Your task to perform on an android device: When is my next appointment? Image 0: 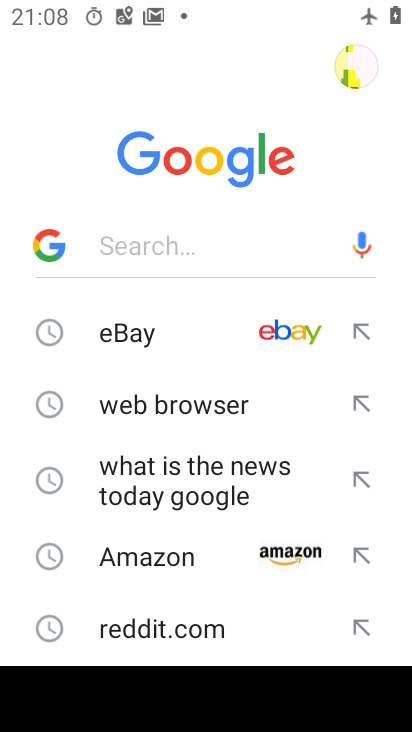
Step 0: press home button
Your task to perform on an android device: When is my next appointment? Image 1: 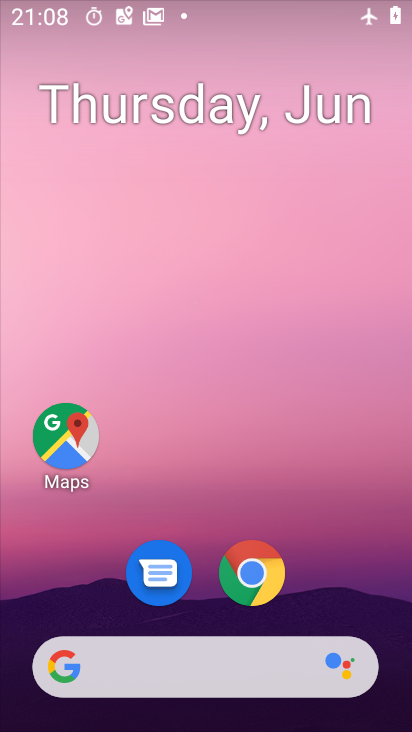
Step 1: drag from (249, 587) to (278, 261)
Your task to perform on an android device: When is my next appointment? Image 2: 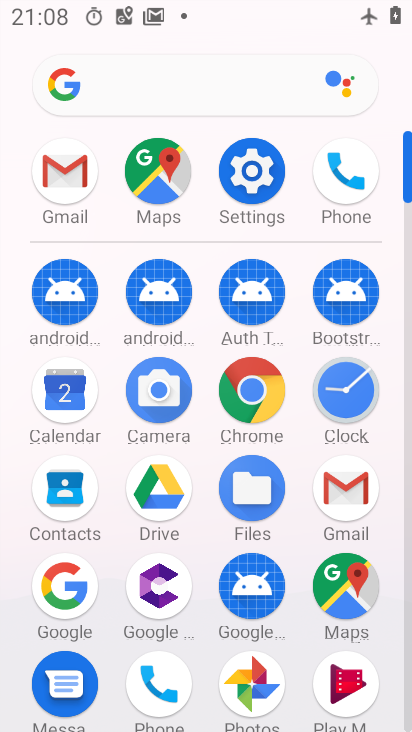
Step 2: click (61, 388)
Your task to perform on an android device: When is my next appointment? Image 3: 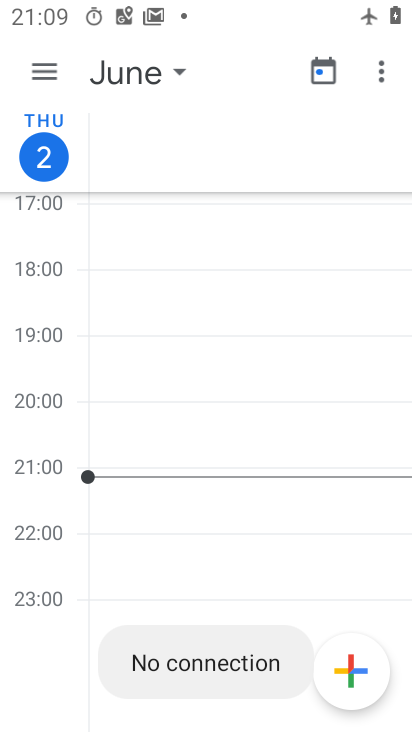
Step 3: drag from (159, 488) to (206, 271)
Your task to perform on an android device: When is my next appointment? Image 4: 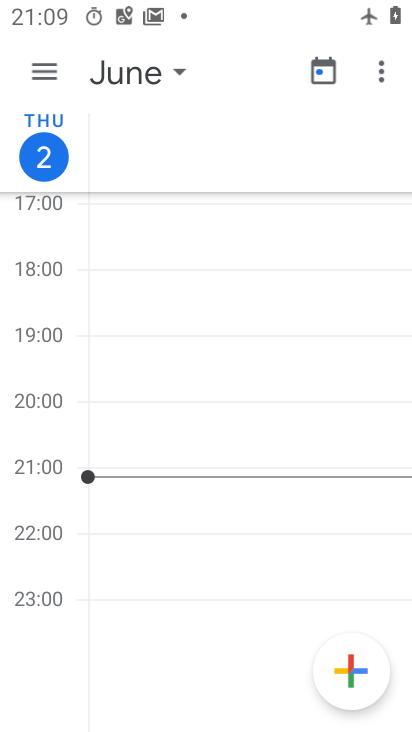
Step 4: drag from (93, 496) to (129, 243)
Your task to perform on an android device: When is my next appointment? Image 5: 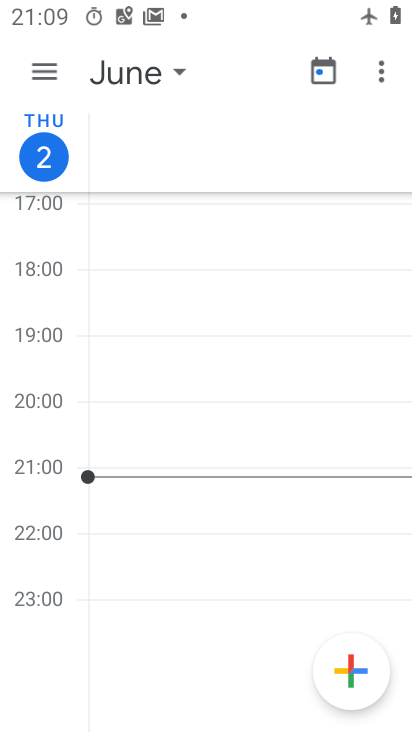
Step 5: click (55, 55)
Your task to perform on an android device: When is my next appointment? Image 6: 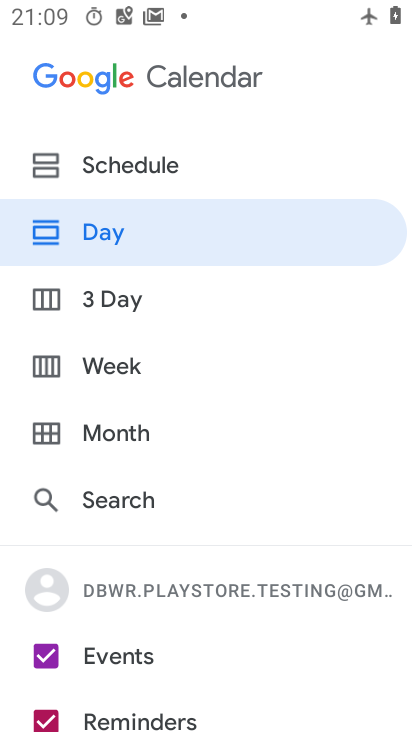
Step 6: click (124, 418)
Your task to perform on an android device: When is my next appointment? Image 7: 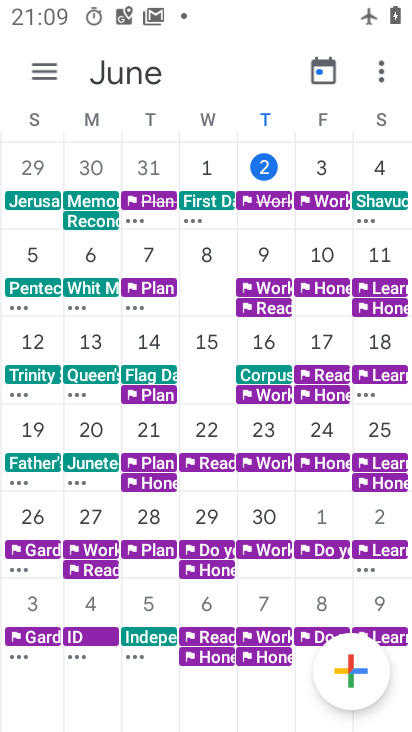
Step 7: drag from (313, 167) to (382, 167)
Your task to perform on an android device: When is my next appointment? Image 8: 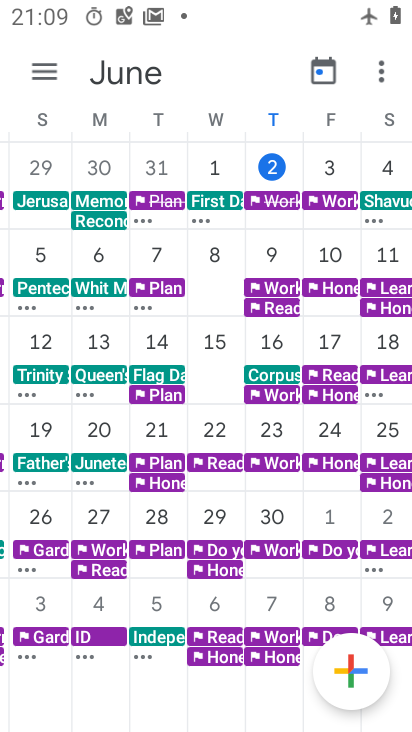
Step 8: click (383, 168)
Your task to perform on an android device: When is my next appointment? Image 9: 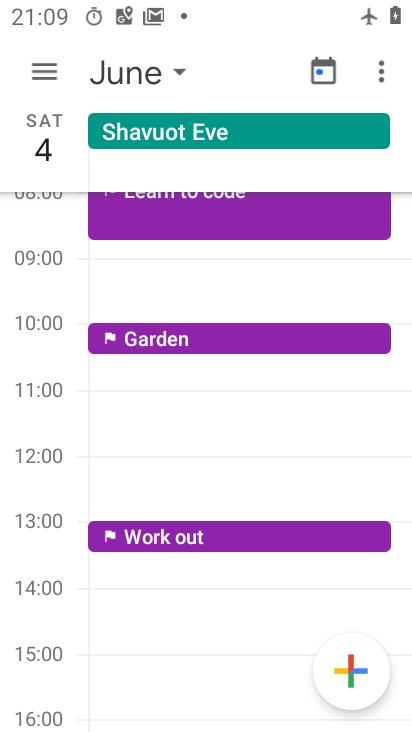
Step 9: click (368, 179)
Your task to perform on an android device: When is my next appointment? Image 10: 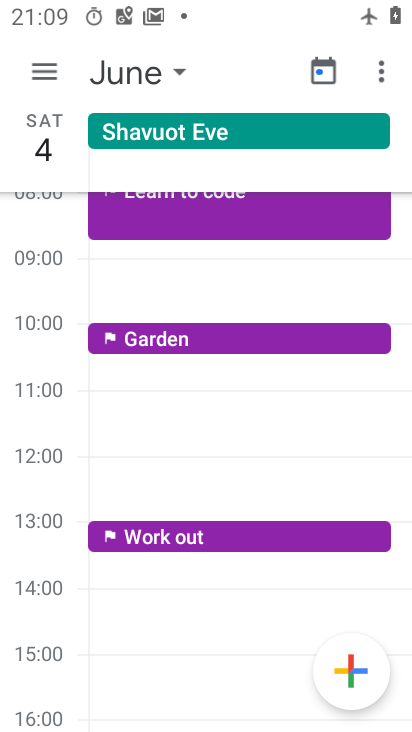
Step 10: task complete